Your task to perform on an android device: Open Google Chrome and click the shortcut for Amazon.com Image 0: 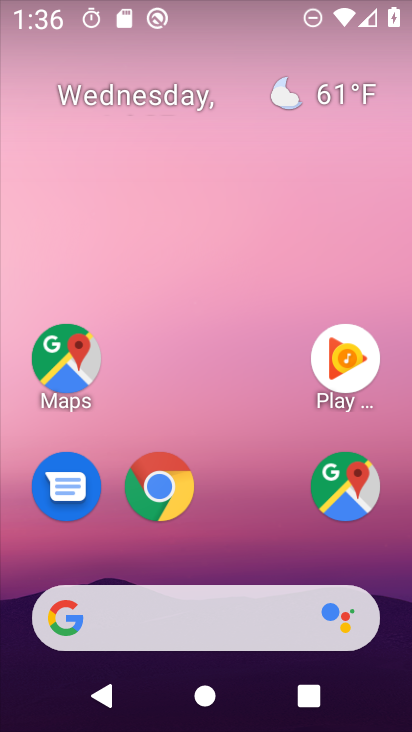
Step 0: drag from (257, 529) to (260, 85)
Your task to perform on an android device: Open Google Chrome and click the shortcut for Amazon.com Image 1: 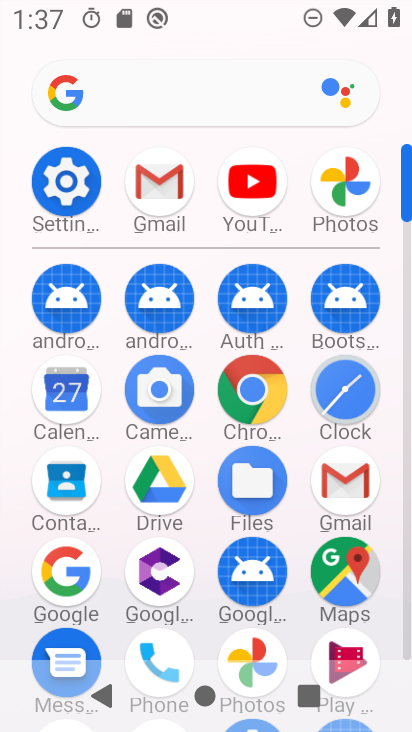
Step 1: click (256, 386)
Your task to perform on an android device: Open Google Chrome and click the shortcut for Amazon.com Image 2: 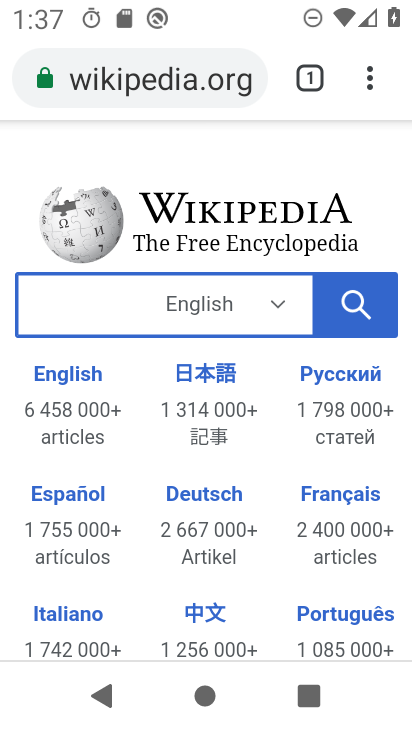
Step 2: press back button
Your task to perform on an android device: Open Google Chrome and click the shortcut for Amazon.com Image 3: 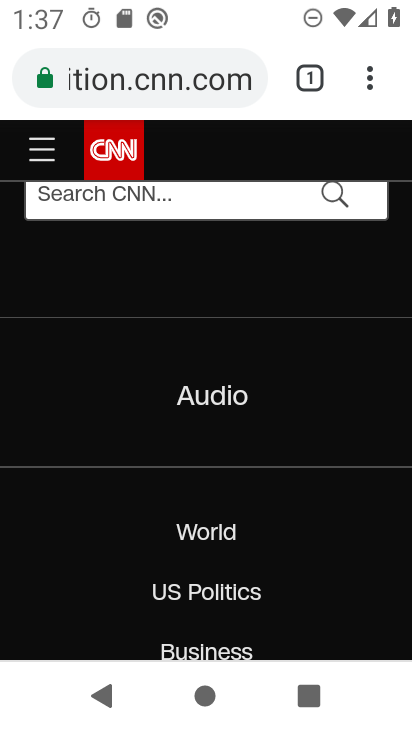
Step 3: press back button
Your task to perform on an android device: Open Google Chrome and click the shortcut for Amazon.com Image 4: 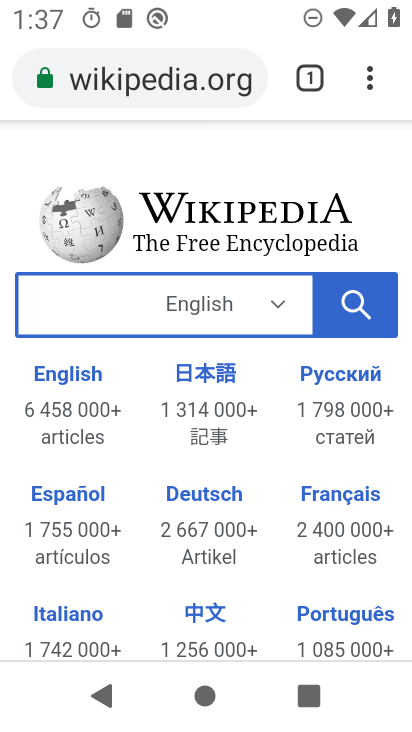
Step 4: press back button
Your task to perform on an android device: Open Google Chrome and click the shortcut for Amazon.com Image 5: 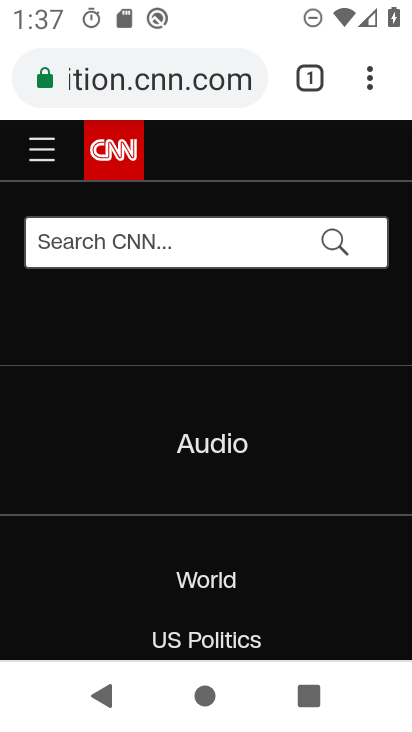
Step 5: press back button
Your task to perform on an android device: Open Google Chrome and click the shortcut for Amazon.com Image 6: 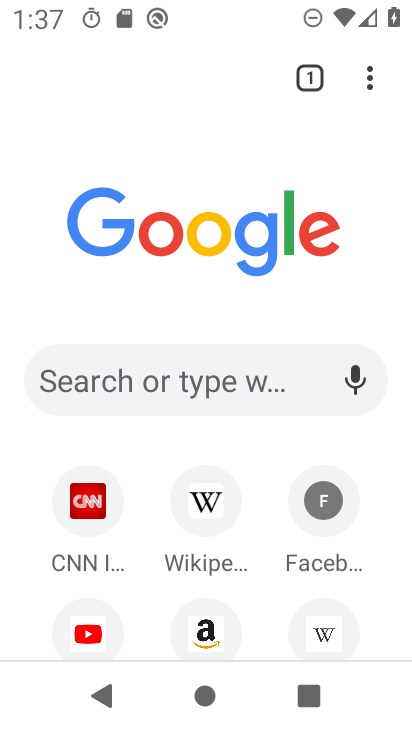
Step 6: drag from (151, 449) to (162, 291)
Your task to perform on an android device: Open Google Chrome and click the shortcut for Amazon.com Image 7: 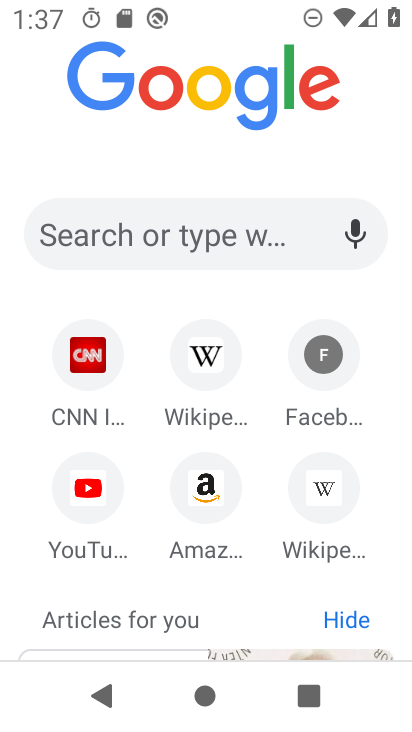
Step 7: click (210, 496)
Your task to perform on an android device: Open Google Chrome and click the shortcut for Amazon.com Image 8: 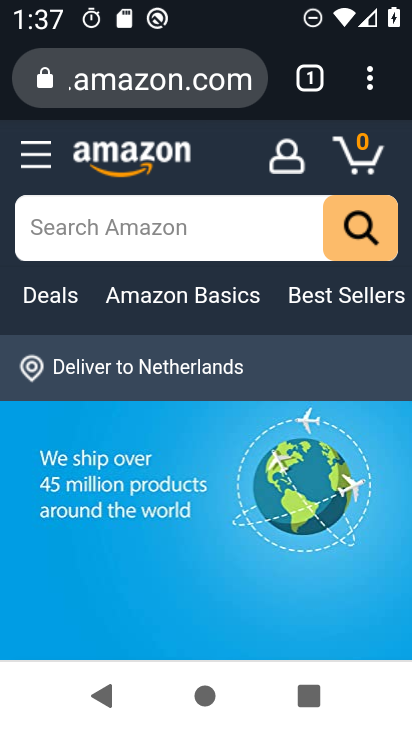
Step 8: task complete